Your task to perform on an android device: Toggle the flashlight Image 0: 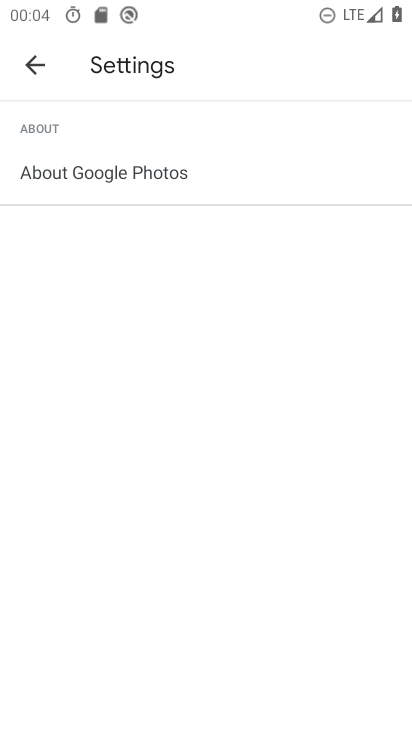
Step 0: press home button
Your task to perform on an android device: Toggle the flashlight Image 1: 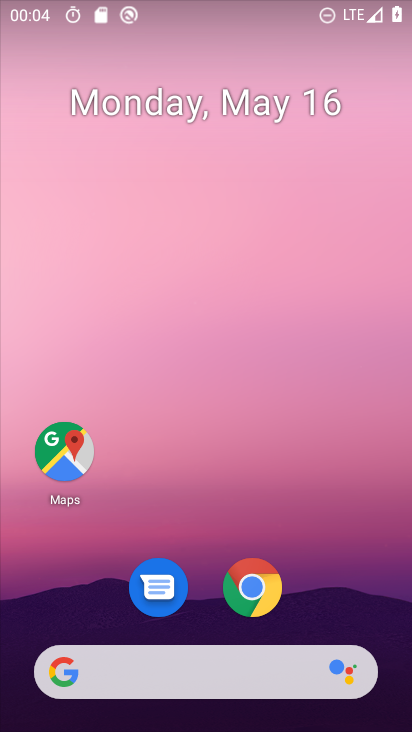
Step 1: drag from (214, 574) to (214, 275)
Your task to perform on an android device: Toggle the flashlight Image 2: 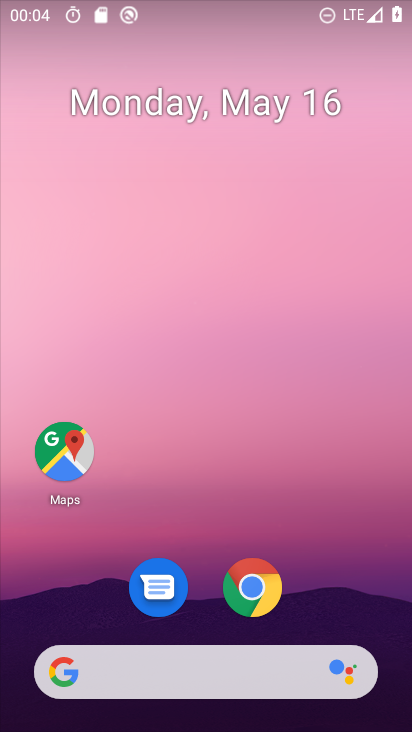
Step 2: drag from (208, 610) to (219, 245)
Your task to perform on an android device: Toggle the flashlight Image 3: 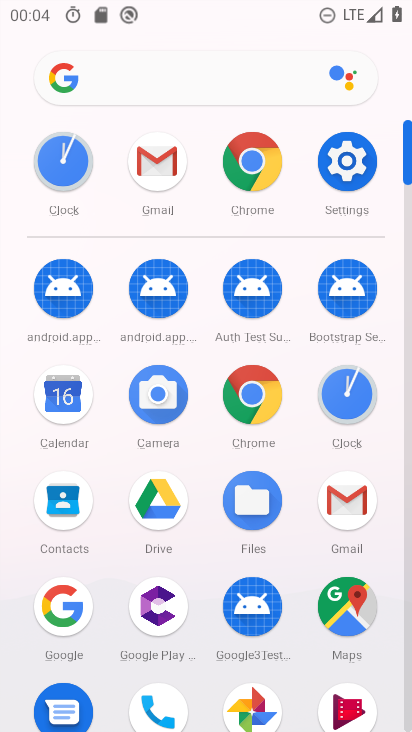
Step 3: click (335, 177)
Your task to perform on an android device: Toggle the flashlight Image 4: 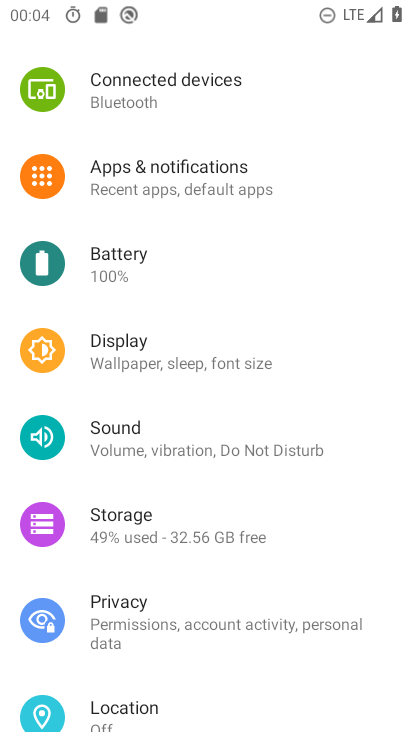
Step 4: task complete